Your task to perform on an android device: turn on improve location accuracy Image 0: 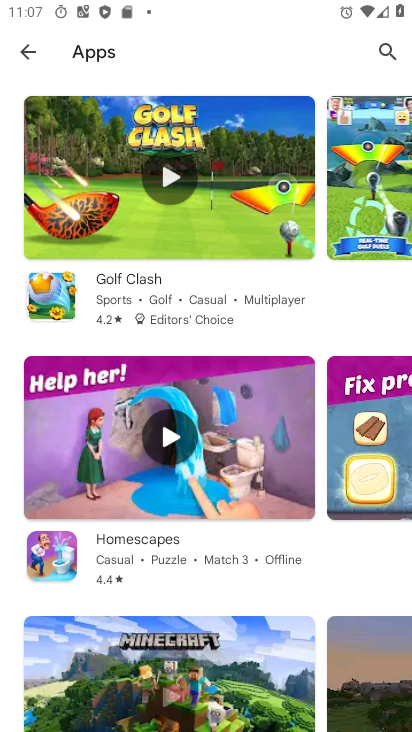
Step 0: press home button
Your task to perform on an android device: turn on improve location accuracy Image 1: 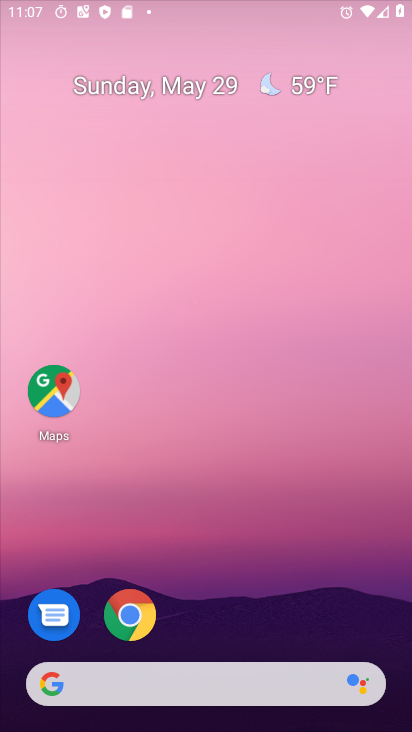
Step 1: drag from (257, 614) to (263, 70)
Your task to perform on an android device: turn on improve location accuracy Image 2: 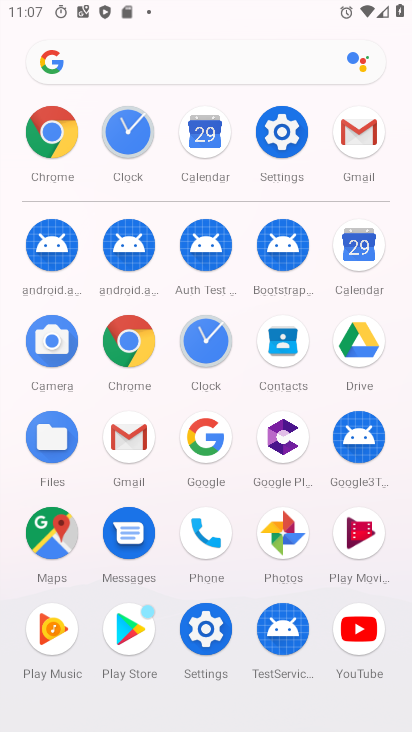
Step 2: click (270, 135)
Your task to perform on an android device: turn on improve location accuracy Image 3: 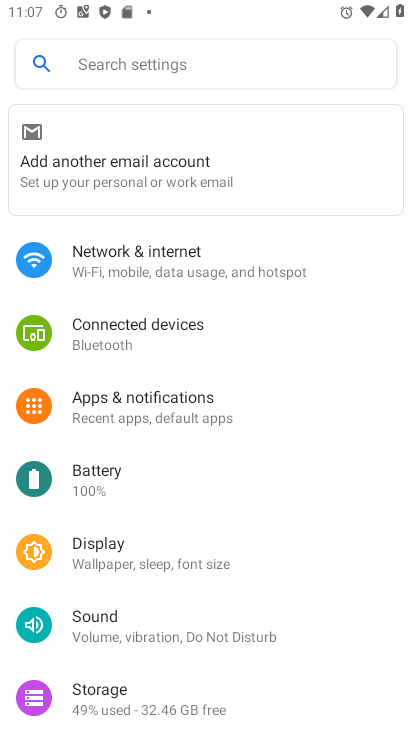
Step 3: drag from (170, 634) to (196, 193)
Your task to perform on an android device: turn on improve location accuracy Image 4: 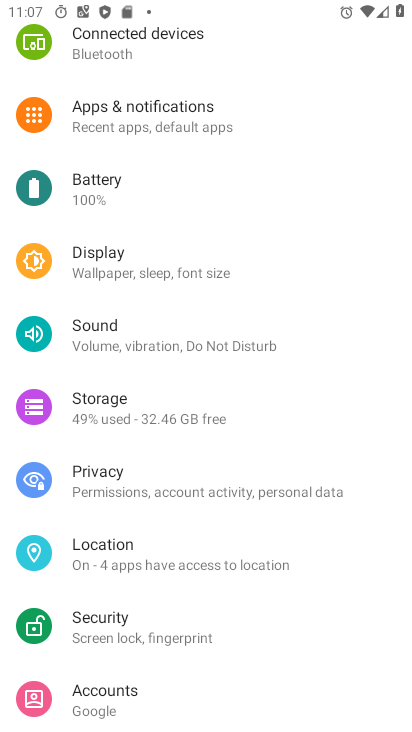
Step 4: click (142, 552)
Your task to perform on an android device: turn on improve location accuracy Image 5: 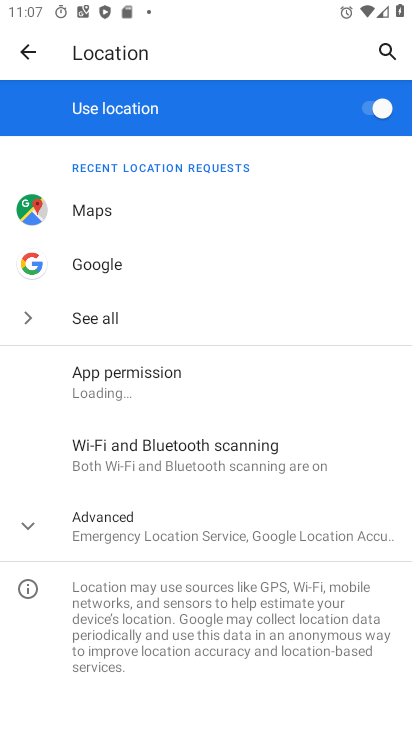
Step 5: click (121, 532)
Your task to perform on an android device: turn on improve location accuracy Image 6: 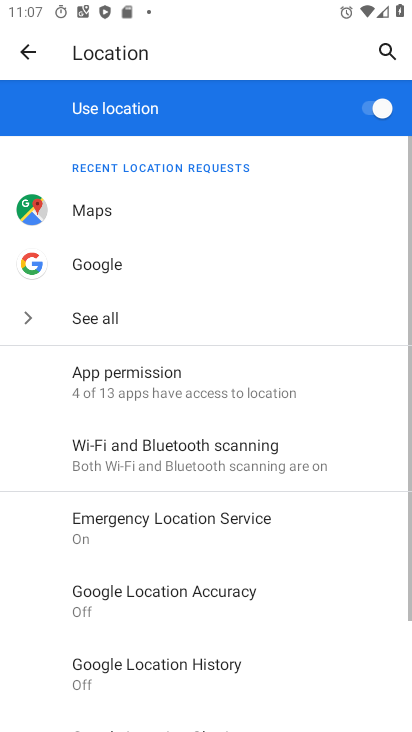
Step 6: click (158, 593)
Your task to perform on an android device: turn on improve location accuracy Image 7: 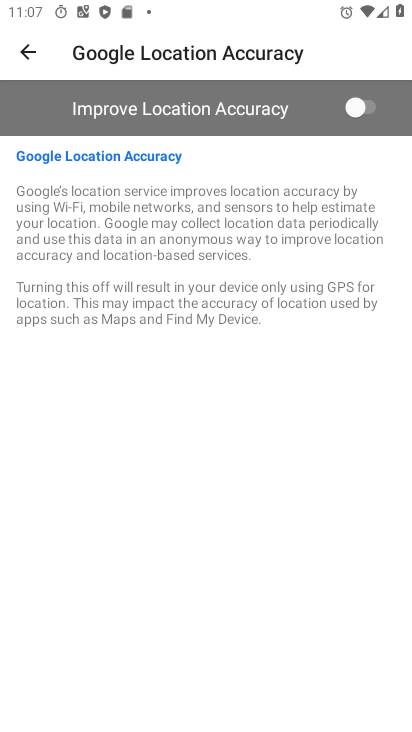
Step 7: click (355, 107)
Your task to perform on an android device: turn on improve location accuracy Image 8: 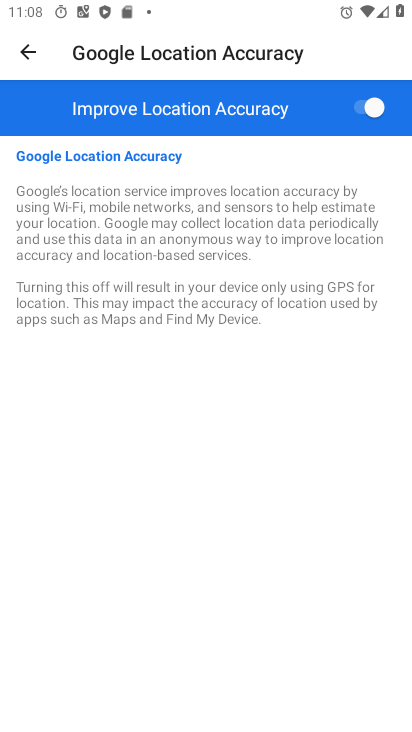
Step 8: task complete